Your task to perform on an android device: Go to display settings Image 0: 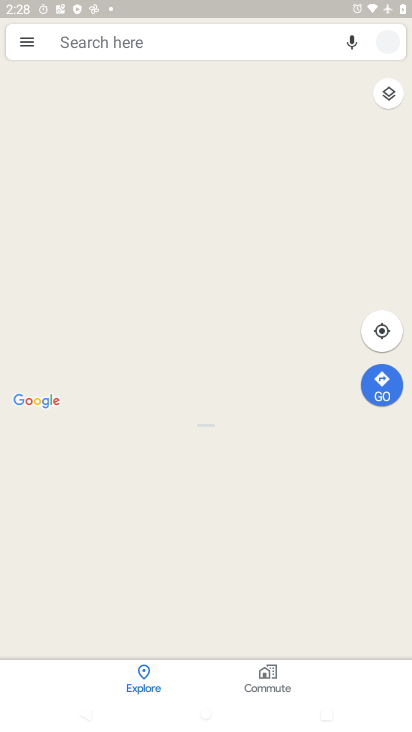
Step 0: press home button
Your task to perform on an android device: Go to display settings Image 1: 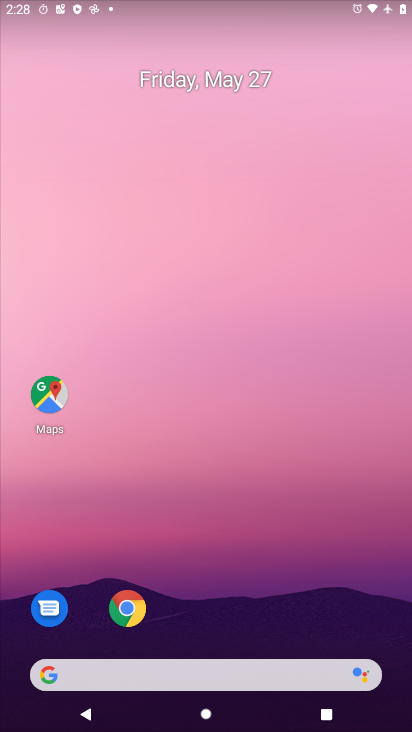
Step 1: drag from (165, 679) to (266, 190)
Your task to perform on an android device: Go to display settings Image 2: 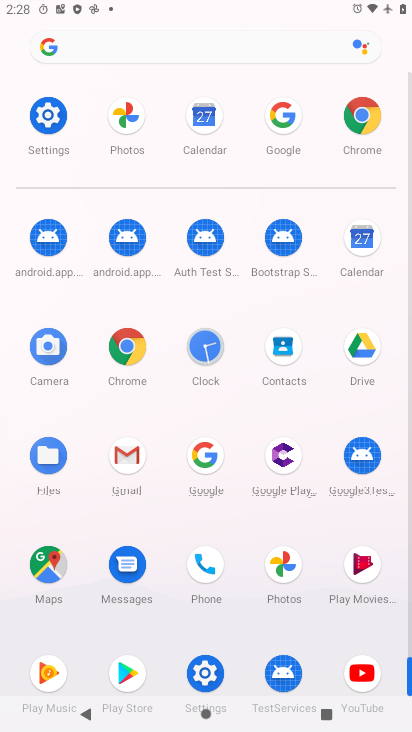
Step 2: click (52, 121)
Your task to perform on an android device: Go to display settings Image 3: 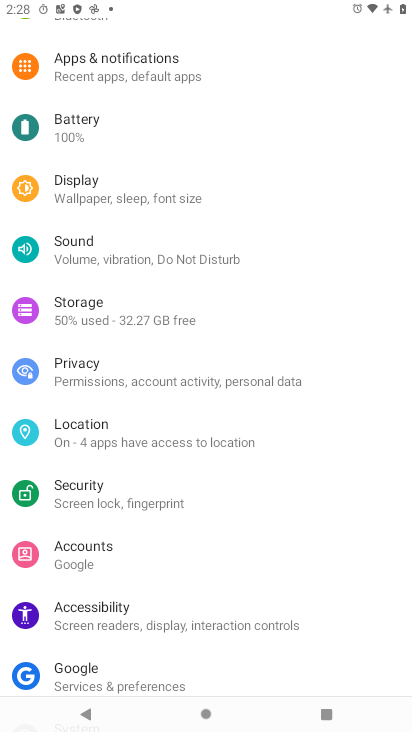
Step 3: click (117, 194)
Your task to perform on an android device: Go to display settings Image 4: 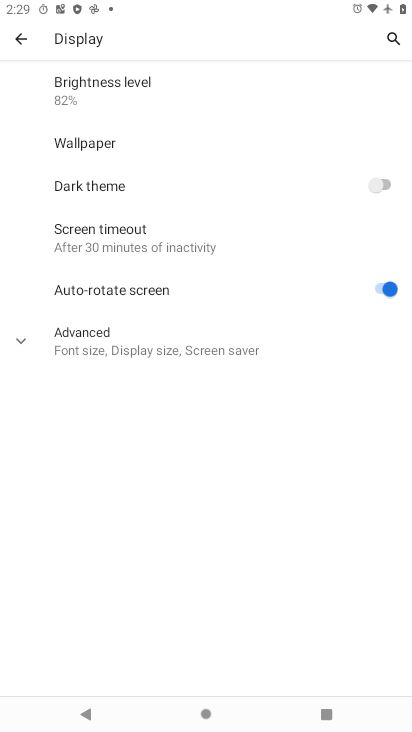
Step 4: task complete